Your task to perform on an android device: find photos in the google photos app Image 0: 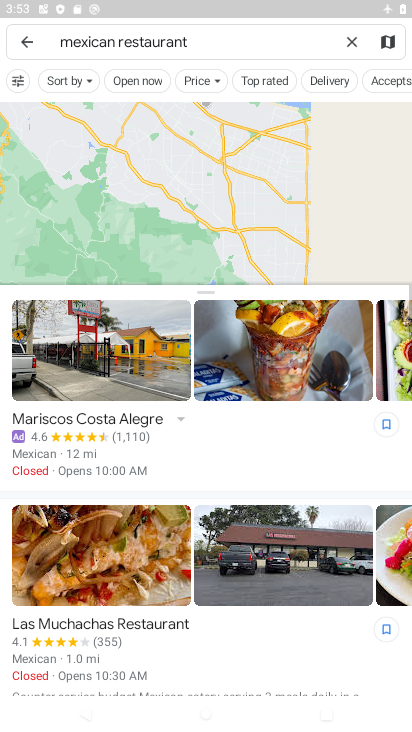
Step 0: press home button
Your task to perform on an android device: find photos in the google photos app Image 1: 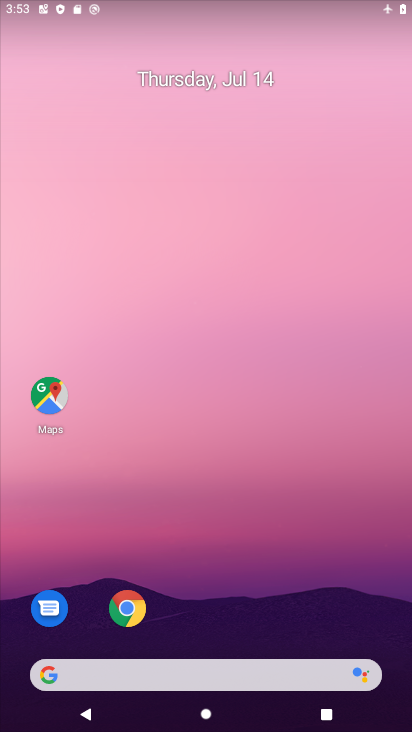
Step 1: drag from (4, 636) to (308, 4)
Your task to perform on an android device: find photos in the google photos app Image 2: 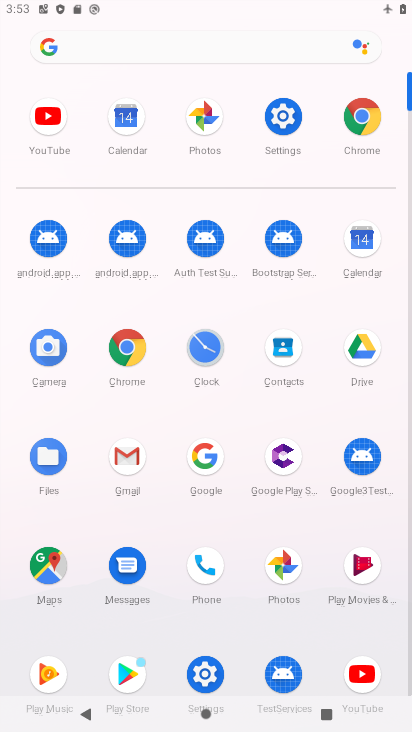
Step 2: click (276, 573)
Your task to perform on an android device: find photos in the google photos app Image 3: 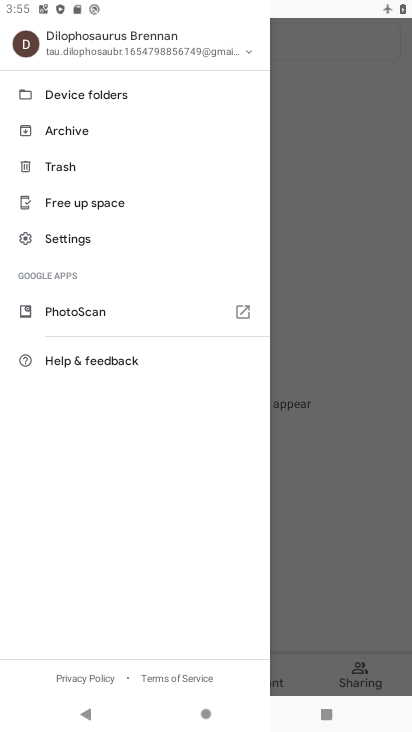
Step 3: click (357, 416)
Your task to perform on an android device: find photos in the google photos app Image 4: 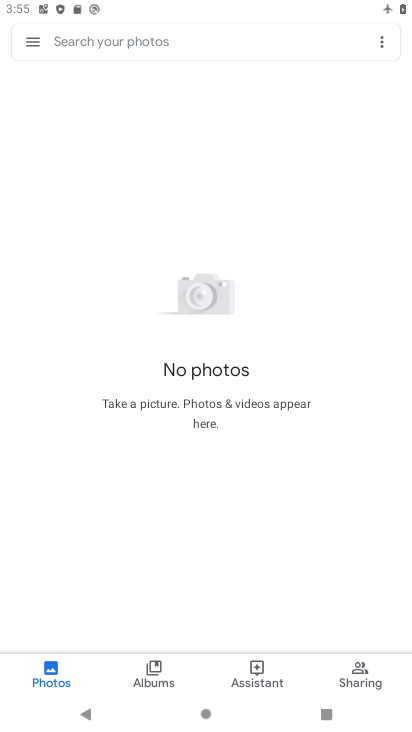
Step 4: task complete